Your task to perform on an android device: toggle location history Image 0: 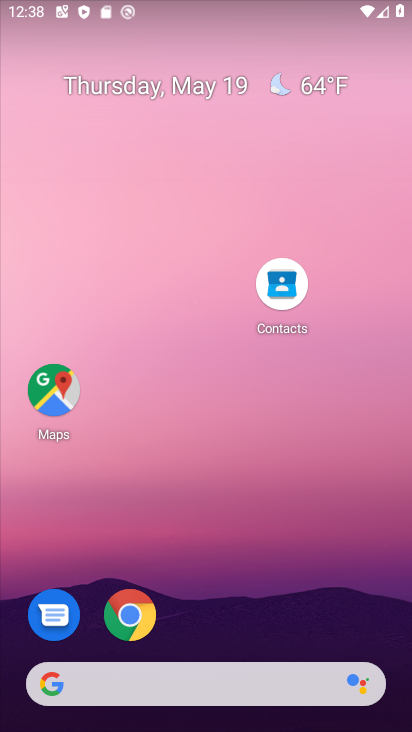
Step 0: drag from (203, 683) to (211, 133)
Your task to perform on an android device: toggle location history Image 1: 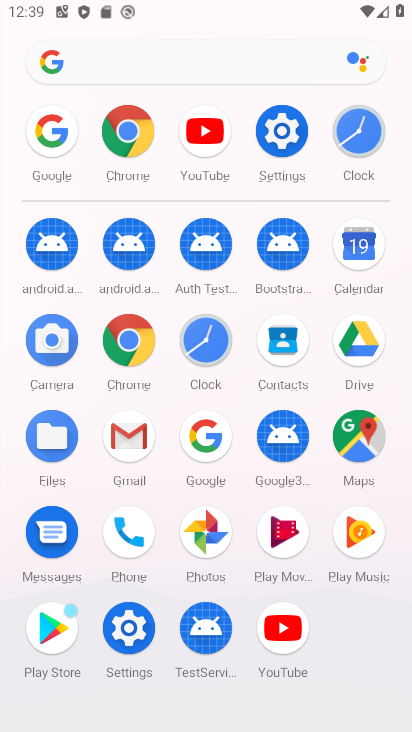
Step 1: click (277, 149)
Your task to perform on an android device: toggle location history Image 2: 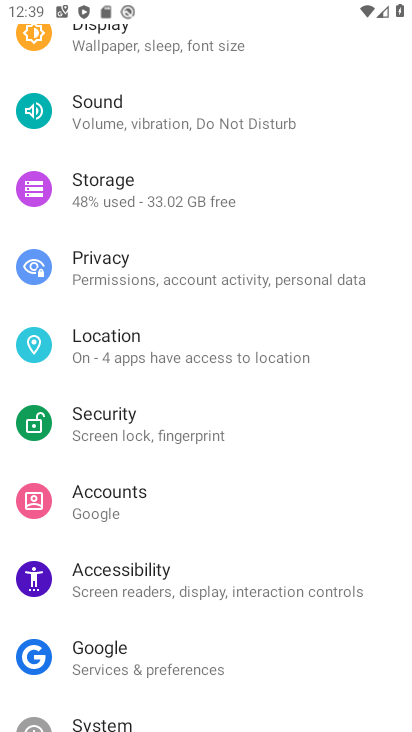
Step 2: drag from (260, 276) to (294, 714)
Your task to perform on an android device: toggle location history Image 3: 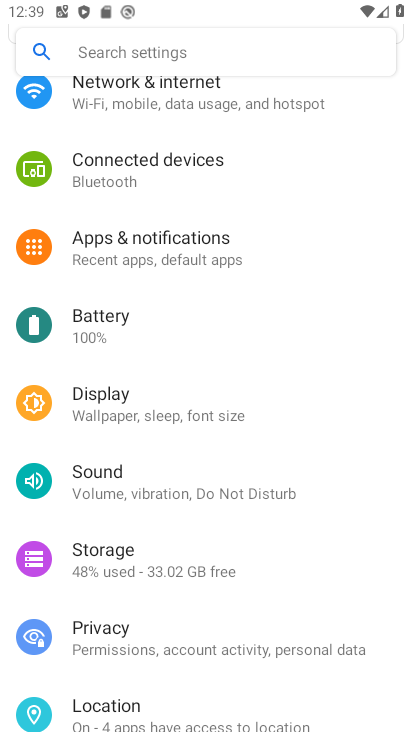
Step 3: drag from (166, 600) to (155, 385)
Your task to perform on an android device: toggle location history Image 4: 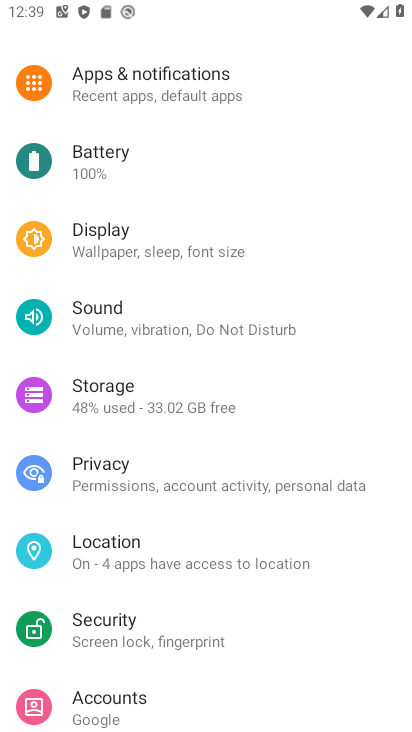
Step 4: click (174, 586)
Your task to perform on an android device: toggle location history Image 5: 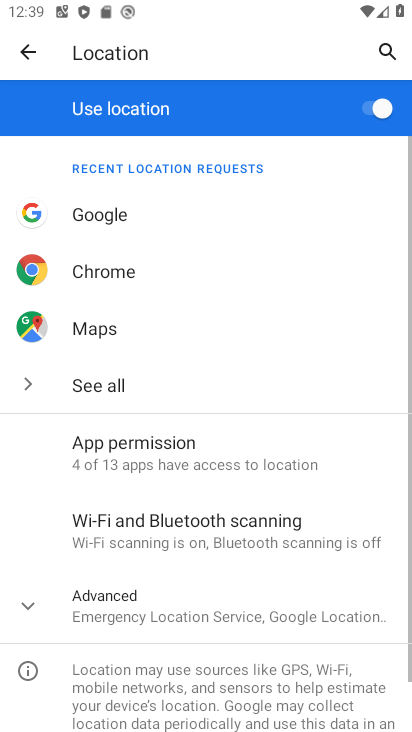
Step 5: click (184, 614)
Your task to perform on an android device: toggle location history Image 6: 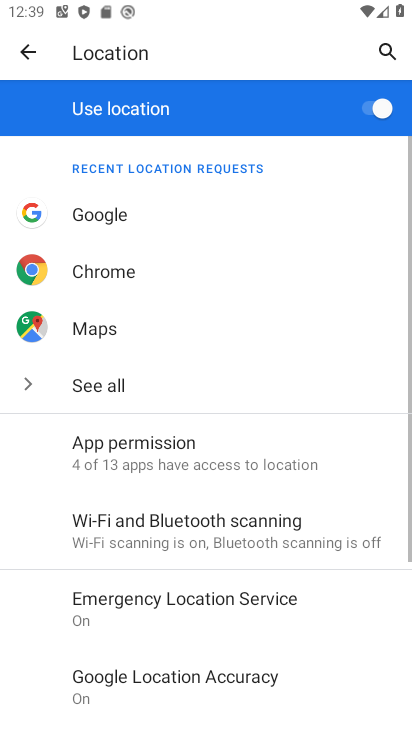
Step 6: drag from (187, 599) to (230, 246)
Your task to perform on an android device: toggle location history Image 7: 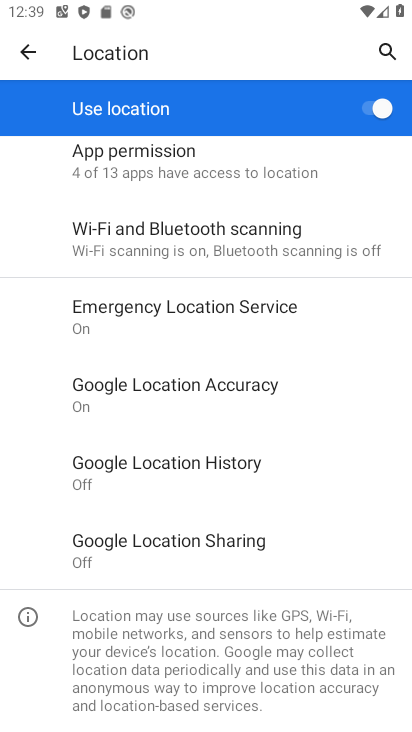
Step 7: click (227, 472)
Your task to perform on an android device: toggle location history Image 8: 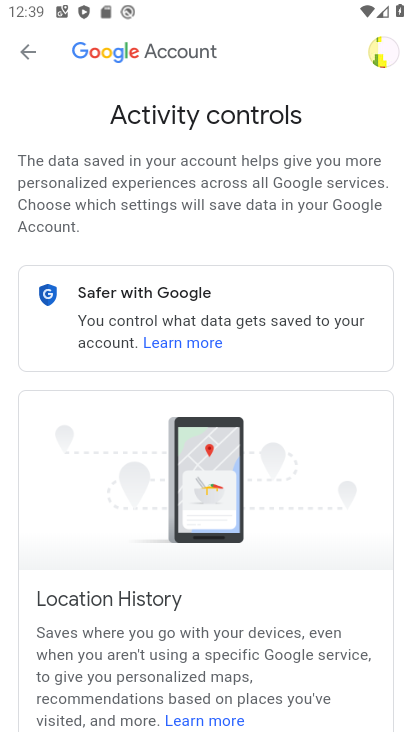
Step 8: drag from (236, 564) to (214, 103)
Your task to perform on an android device: toggle location history Image 9: 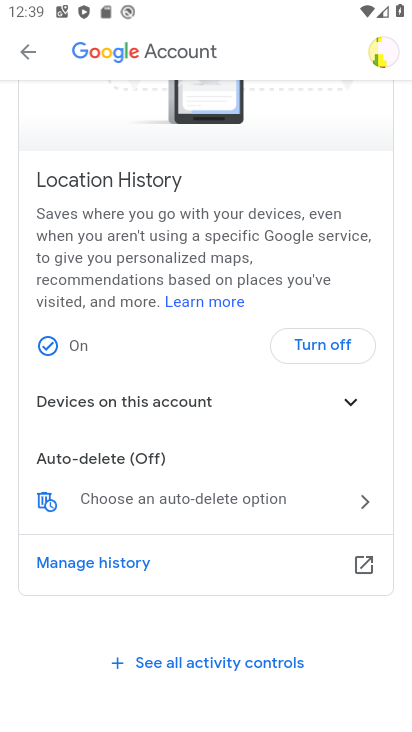
Step 9: click (326, 339)
Your task to perform on an android device: toggle location history Image 10: 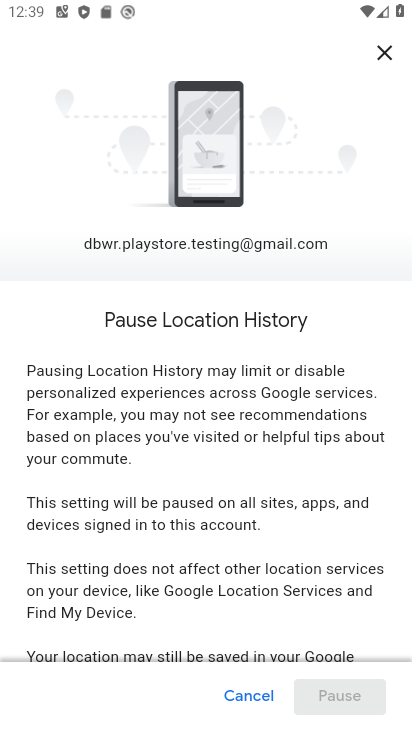
Step 10: drag from (192, 620) to (211, 42)
Your task to perform on an android device: toggle location history Image 11: 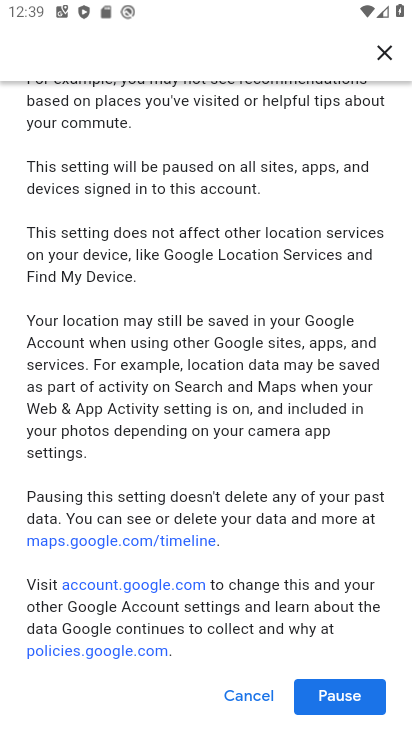
Step 11: click (332, 698)
Your task to perform on an android device: toggle location history Image 12: 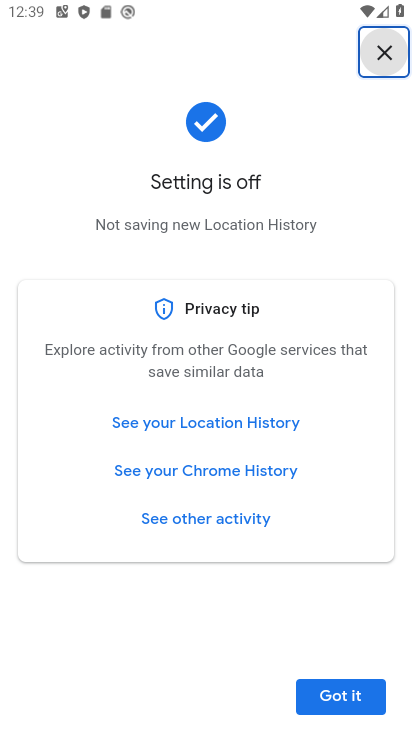
Step 12: click (351, 701)
Your task to perform on an android device: toggle location history Image 13: 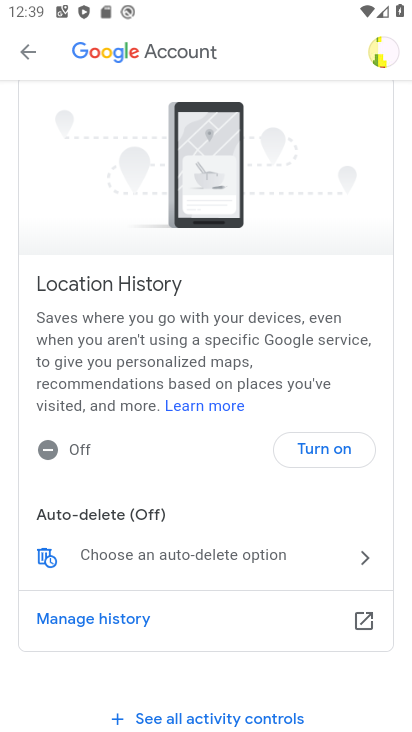
Step 13: task complete